Your task to perform on an android device: Open Yahoo.com Image 0: 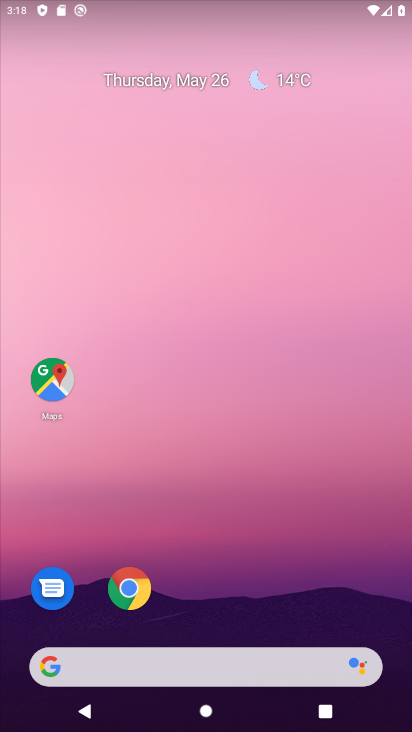
Step 0: click (196, 674)
Your task to perform on an android device: Open Yahoo.com Image 1: 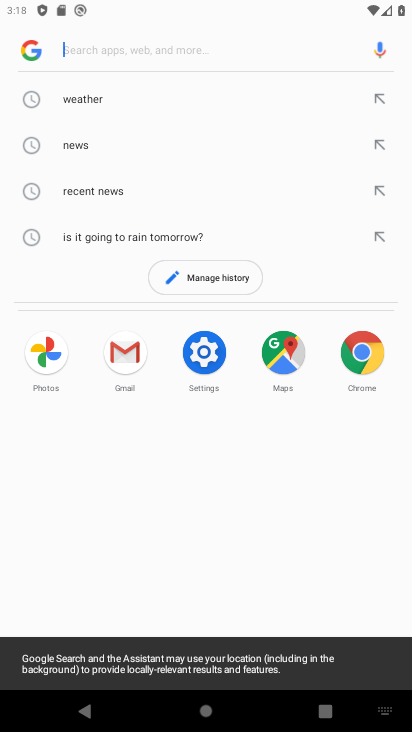
Step 1: type "yahoo.com"
Your task to perform on an android device: Open Yahoo.com Image 2: 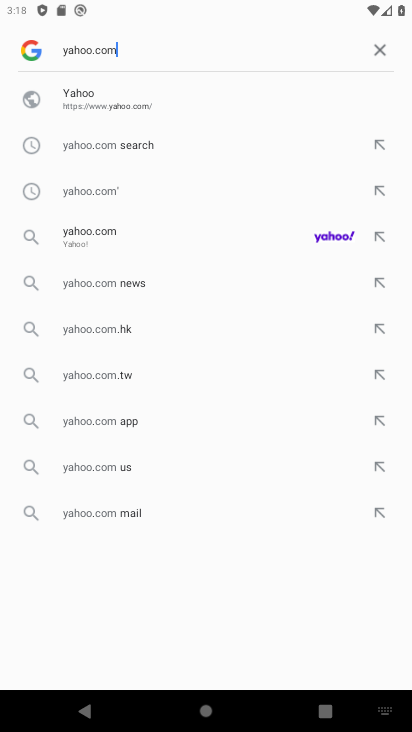
Step 2: click (136, 115)
Your task to perform on an android device: Open Yahoo.com Image 3: 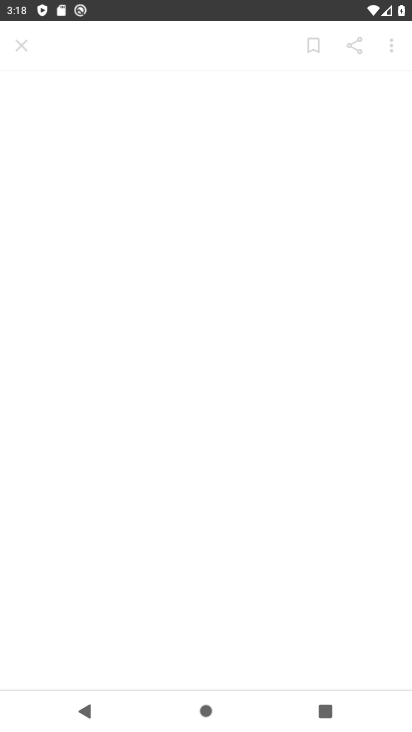
Step 3: task complete